Your task to perform on an android device: turn pop-ups off in chrome Image 0: 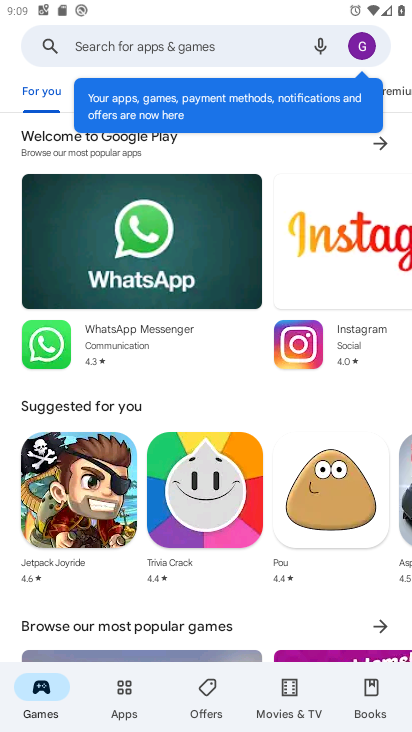
Step 0: press home button
Your task to perform on an android device: turn pop-ups off in chrome Image 1: 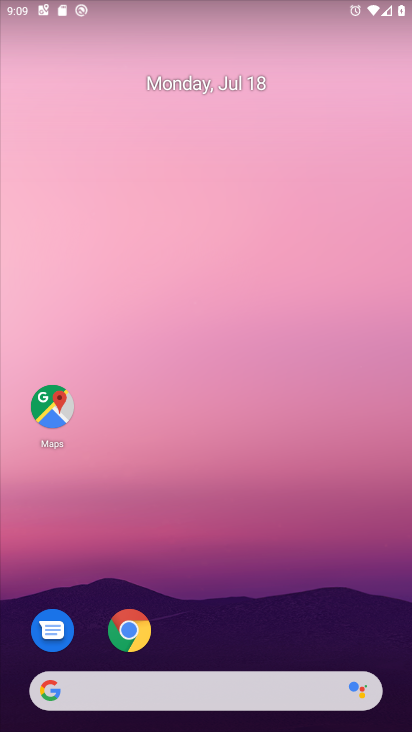
Step 1: click (138, 619)
Your task to perform on an android device: turn pop-ups off in chrome Image 2: 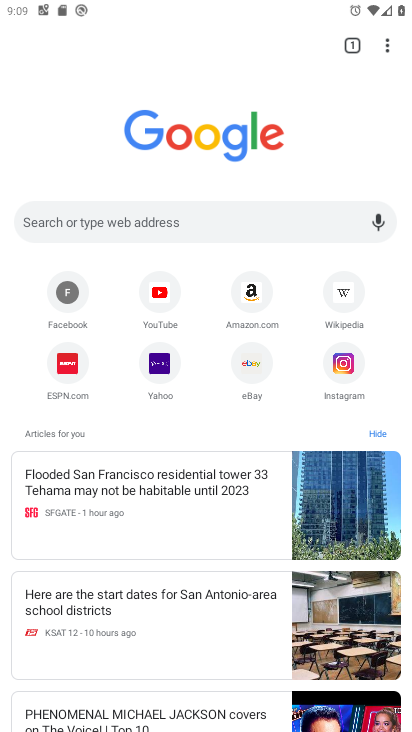
Step 2: click (391, 51)
Your task to perform on an android device: turn pop-ups off in chrome Image 3: 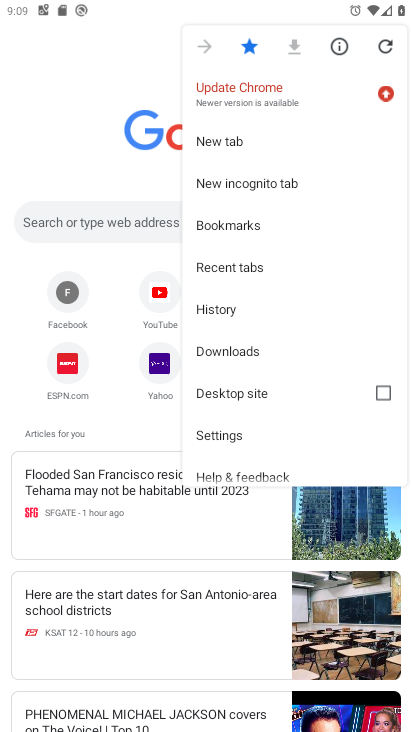
Step 3: click (228, 437)
Your task to perform on an android device: turn pop-ups off in chrome Image 4: 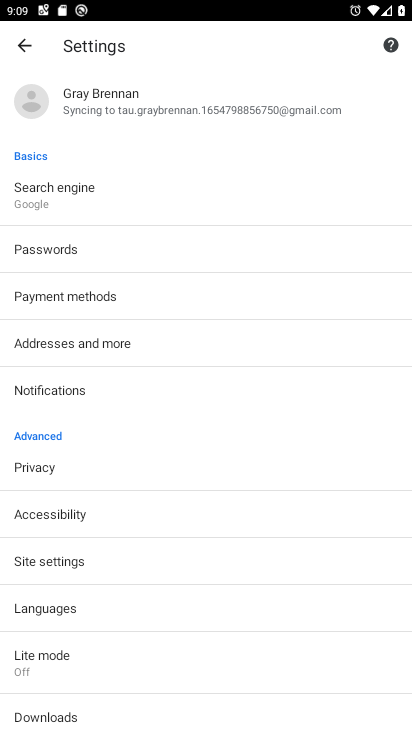
Step 4: click (98, 568)
Your task to perform on an android device: turn pop-ups off in chrome Image 5: 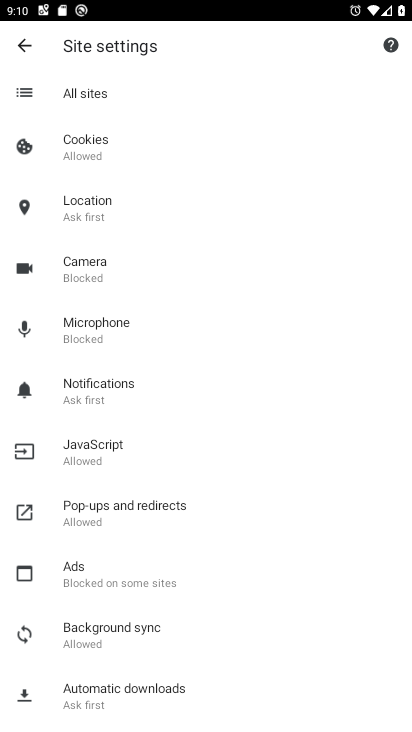
Step 5: click (151, 510)
Your task to perform on an android device: turn pop-ups off in chrome Image 6: 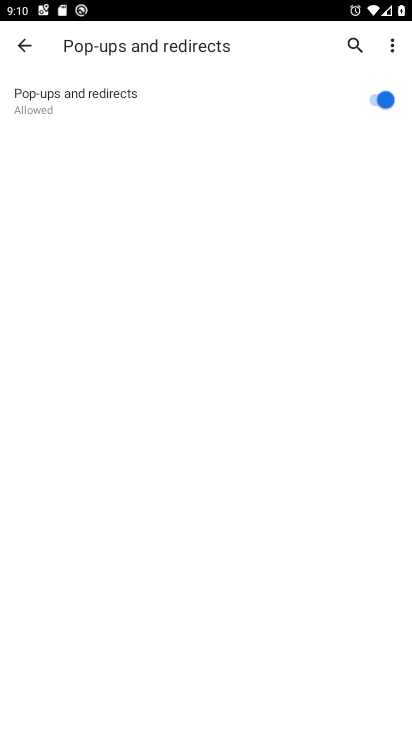
Step 6: click (368, 110)
Your task to perform on an android device: turn pop-ups off in chrome Image 7: 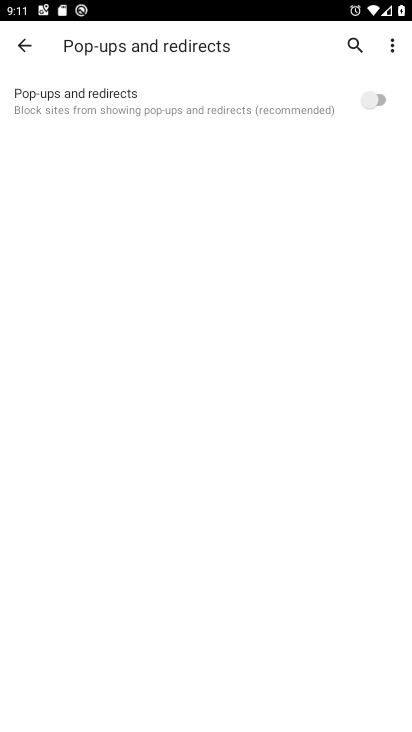
Step 7: task complete